Your task to perform on an android device: check battery use Image 0: 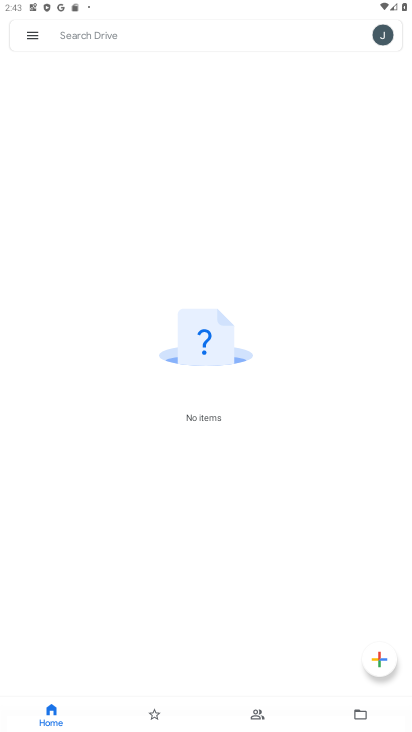
Step 0: press home button
Your task to perform on an android device: check battery use Image 1: 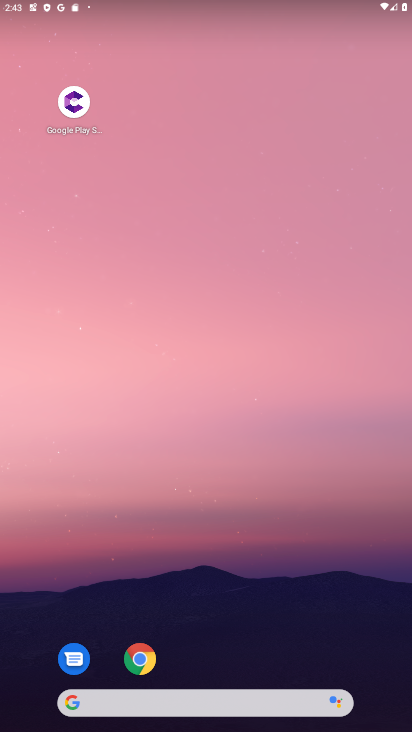
Step 1: drag from (398, 712) to (352, 80)
Your task to perform on an android device: check battery use Image 2: 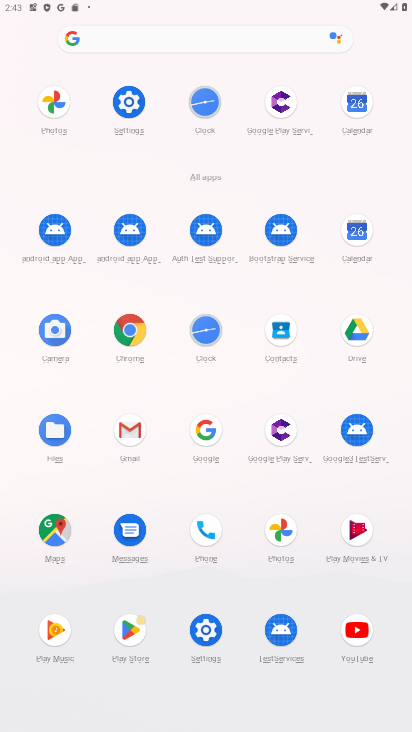
Step 2: click (133, 99)
Your task to perform on an android device: check battery use Image 3: 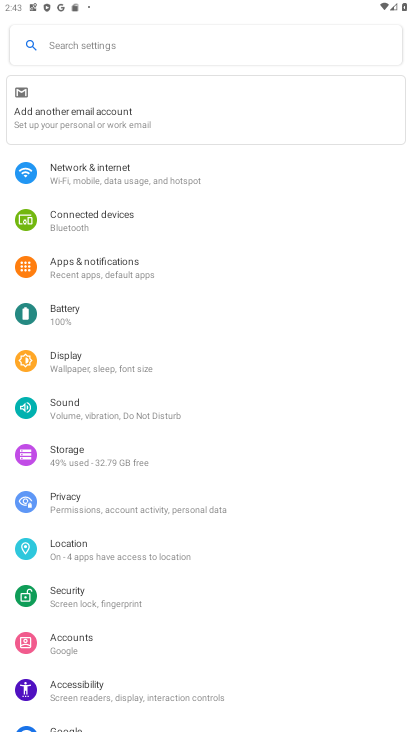
Step 3: click (62, 312)
Your task to perform on an android device: check battery use Image 4: 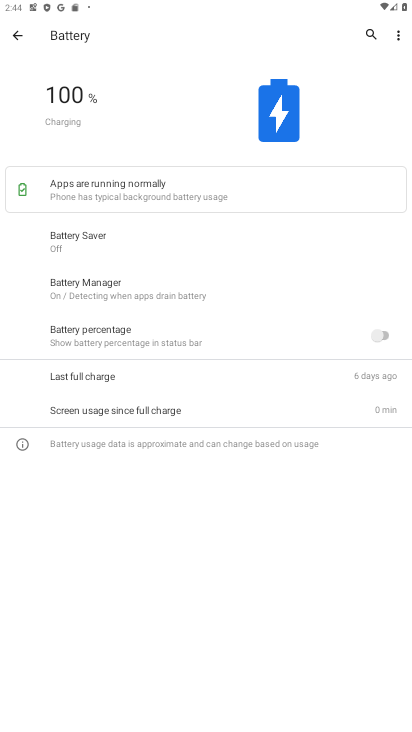
Step 4: task complete